Your task to perform on an android device: Open ESPN.com Image 0: 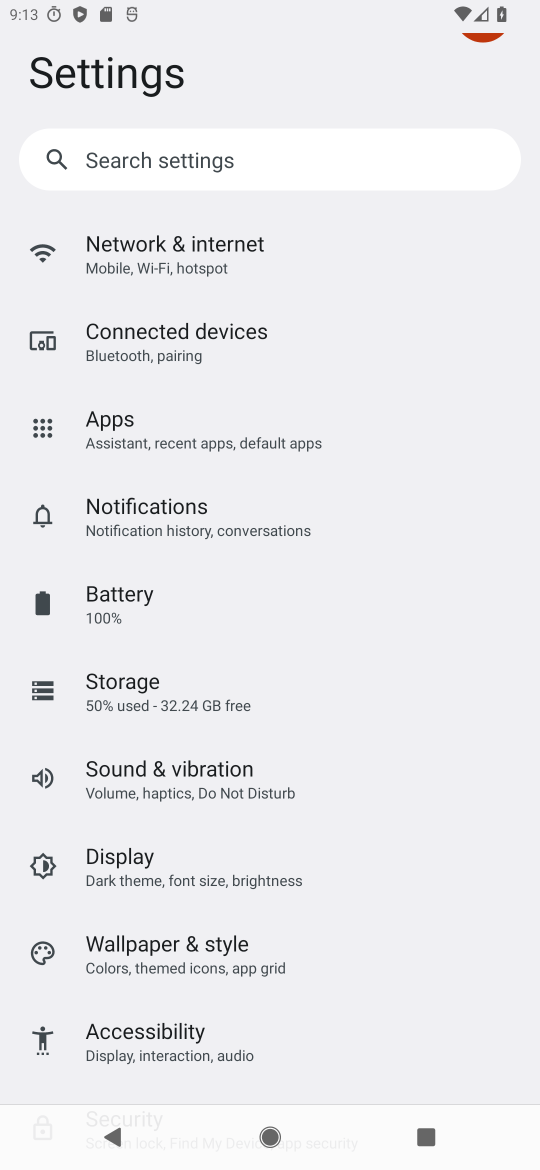
Step 0: press home button
Your task to perform on an android device: Open ESPN.com Image 1: 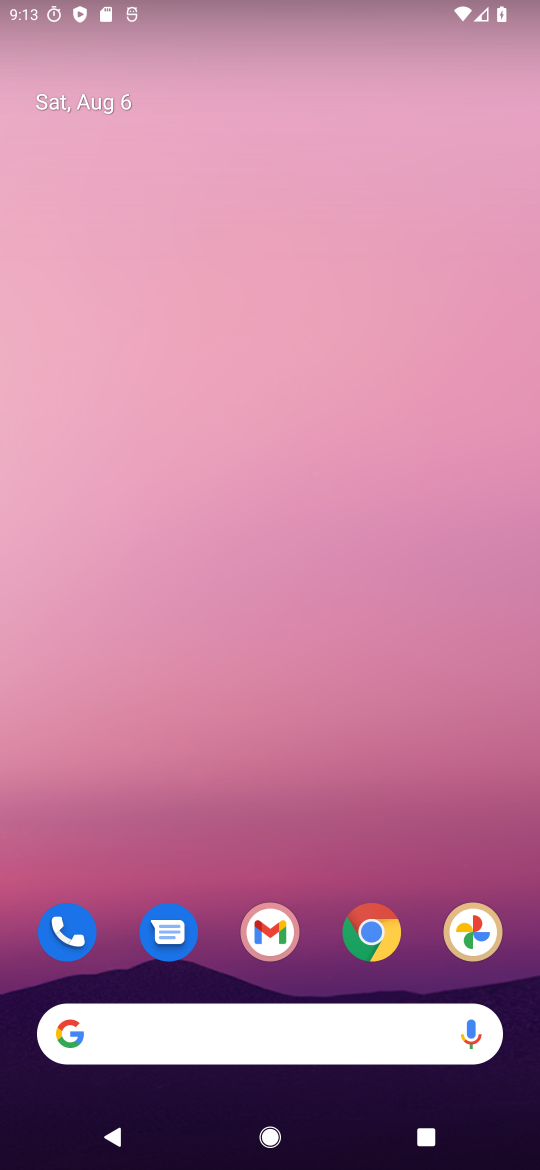
Step 1: click (374, 939)
Your task to perform on an android device: Open ESPN.com Image 2: 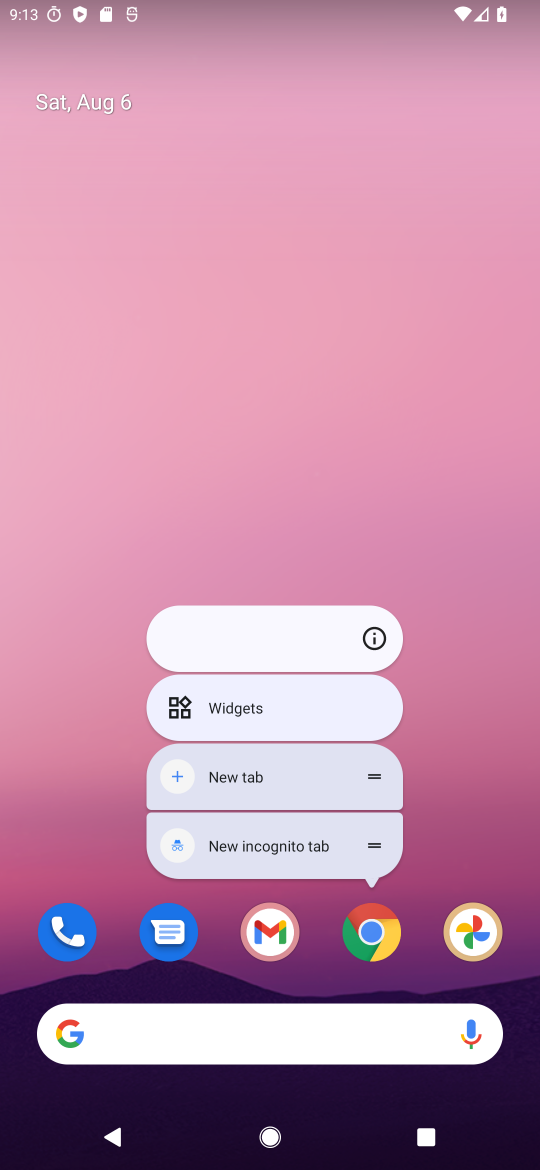
Step 2: click (375, 945)
Your task to perform on an android device: Open ESPN.com Image 3: 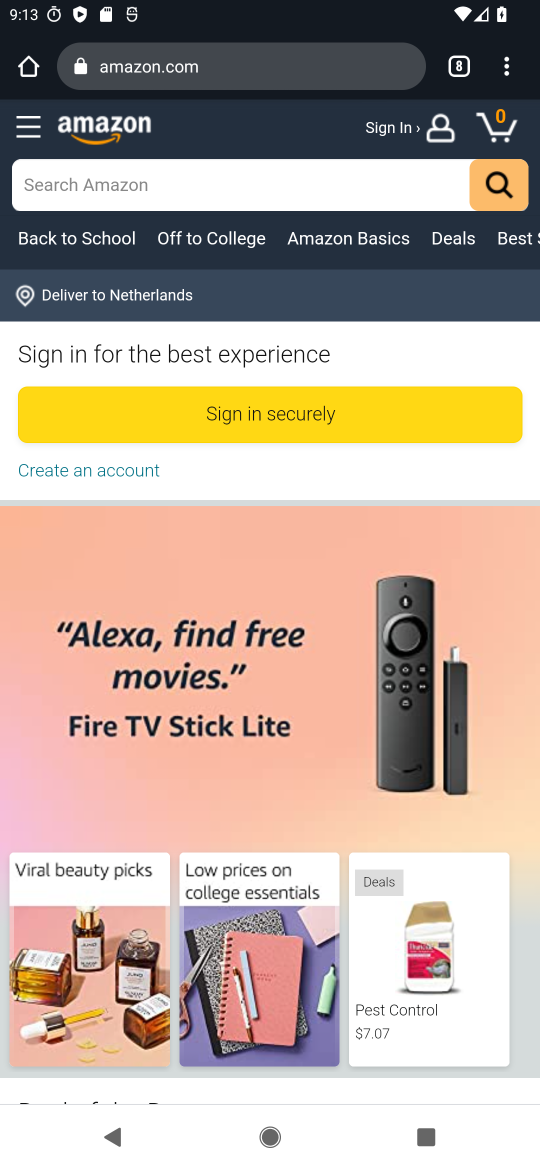
Step 3: drag from (502, 62) to (299, 193)
Your task to perform on an android device: Open ESPN.com Image 4: 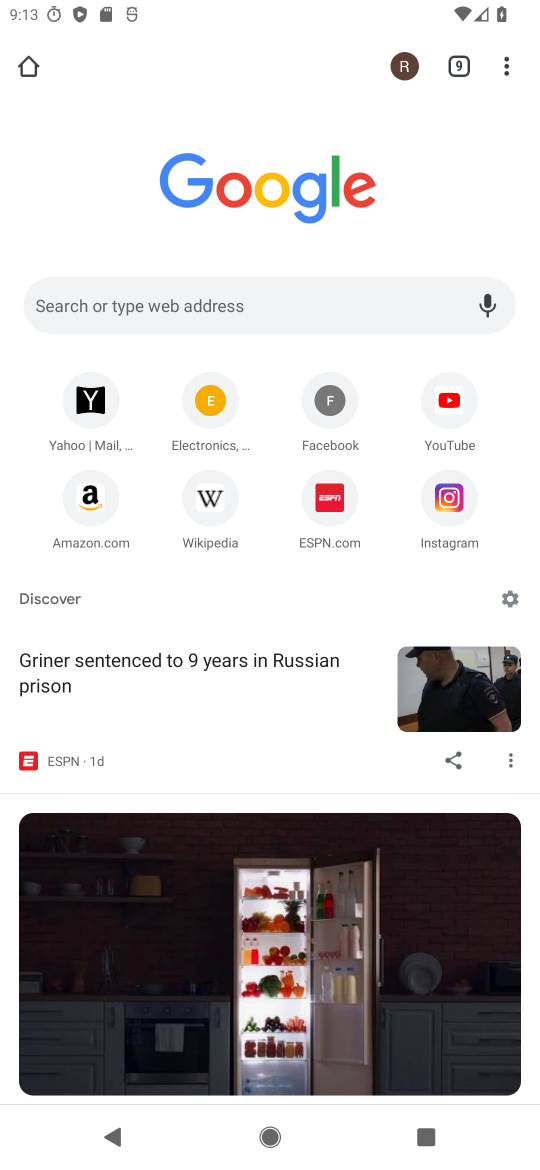
Step 4: click (342, 495)
Your task to perform on an android device: Open ESPN.com Image 5: 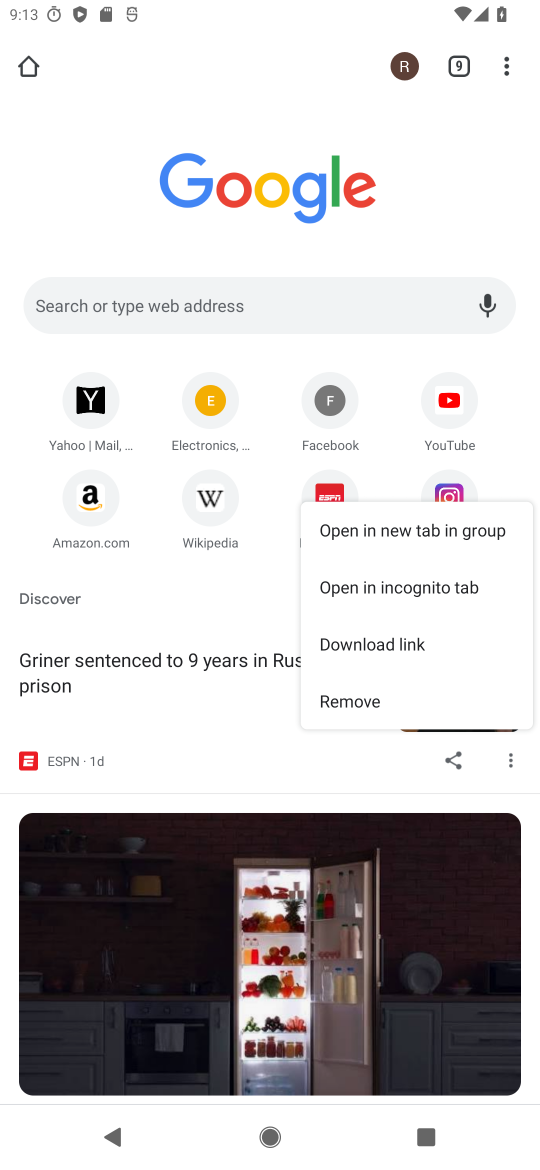
Step 5: click (325, 492)
Your task to perform on an android device: Open ESPN.com Image 6: 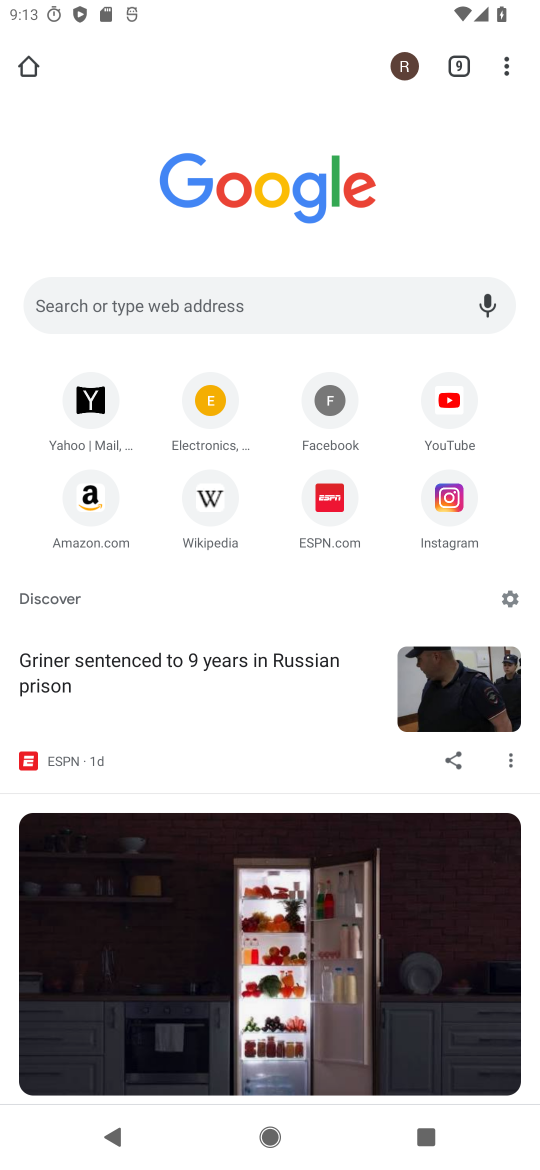
Step 6: click (325, 494)
Your task to perform on an android device: Open ESPN.com Image 7: 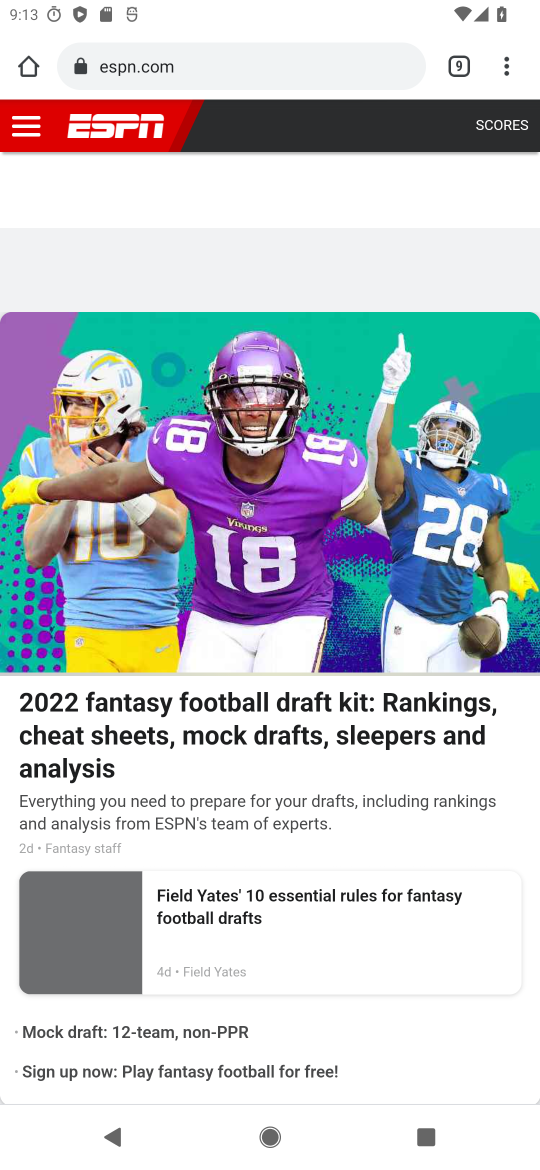
Step 7: task complete